Your task to perform on an android device: What's the weather? Image 0: 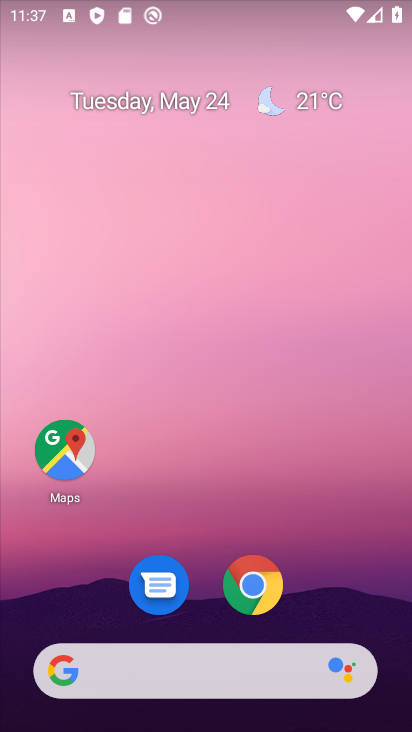
Step 0: click (177, 680)
Your task to perform on an android device: What's the weather? Image 1: 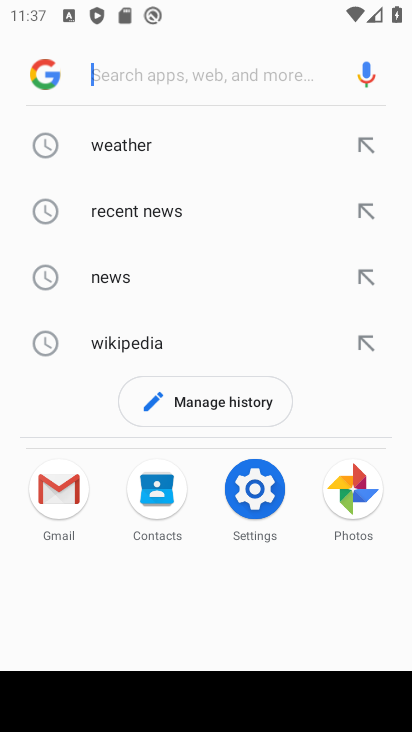
Step 1: click (100, 144)
Your task to perform on an android device: What's the weather? Image 2: 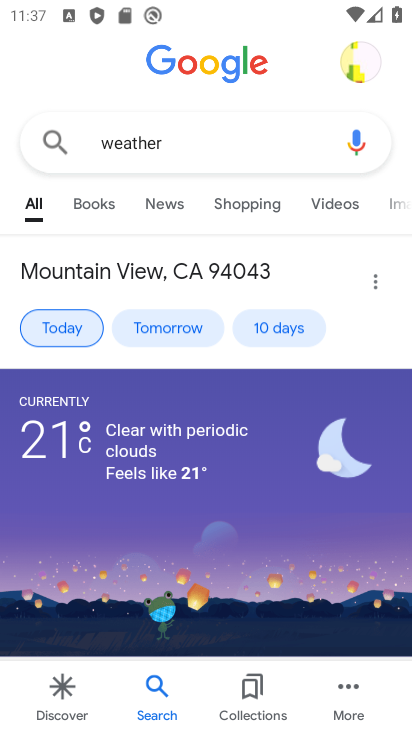
Step 2: click (83, 316)
Your task to perform on an android device: What's the weather? Image 3: 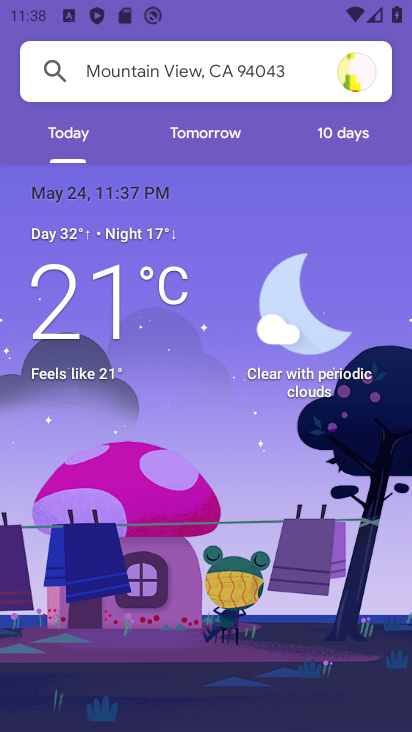
Step 3: task complete